Your task to perform on an android device: Search for usb-c to usb-a on costco, select the first entry, and add it to the cart. Image 0: 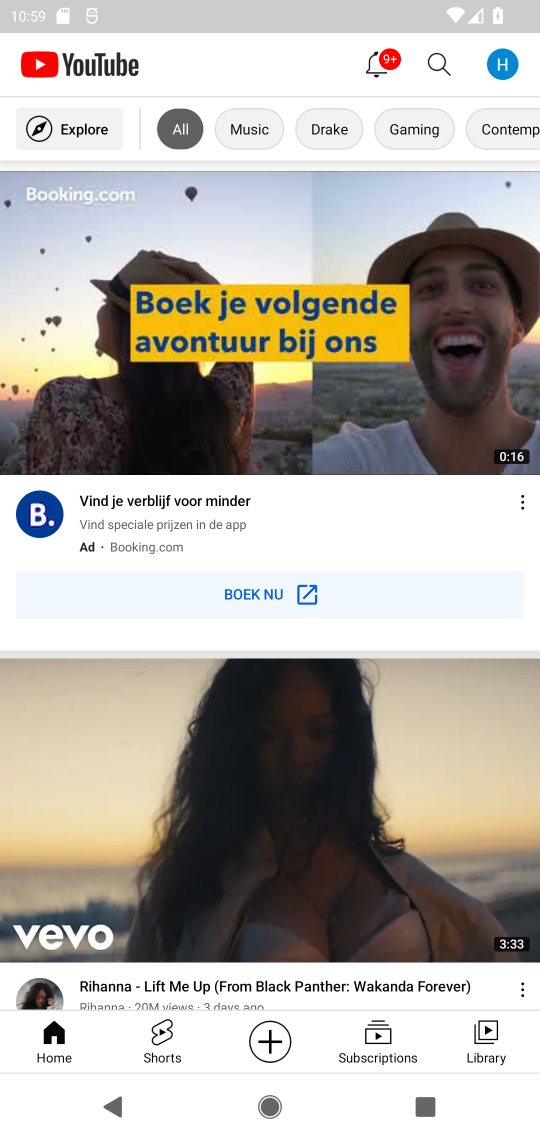
Step 0: press home button
Your task to perform on an android device: Search for usb-c to usb-a on costco, select the first entry, and add it to the cart. Image 1: 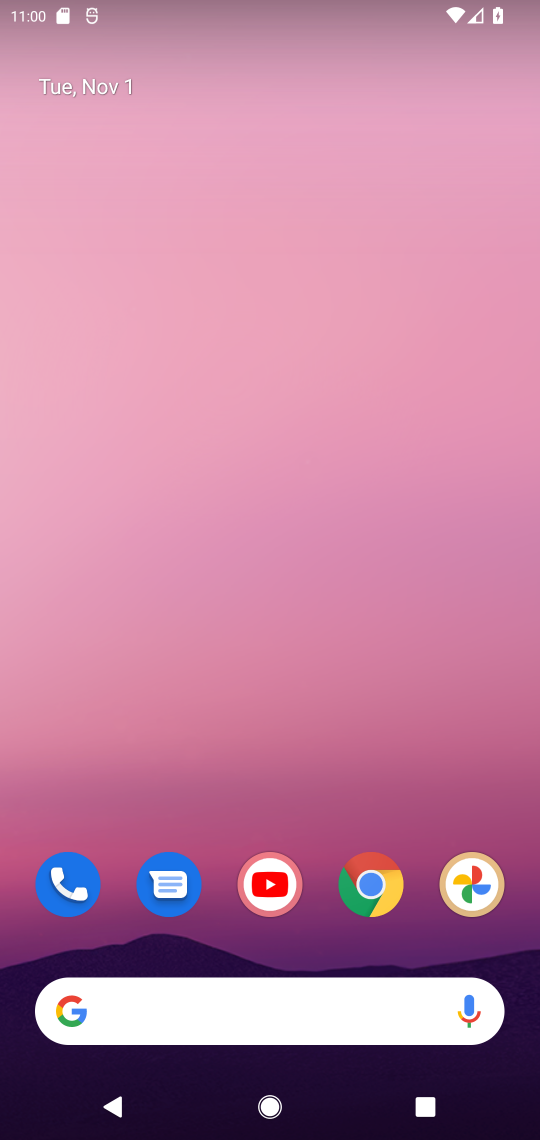
Step 1: click (357, 894)
Your task to perform on an android device: Search for usb-c to usb-a on costco, select the first entry, and add it to the cart. Image 2: 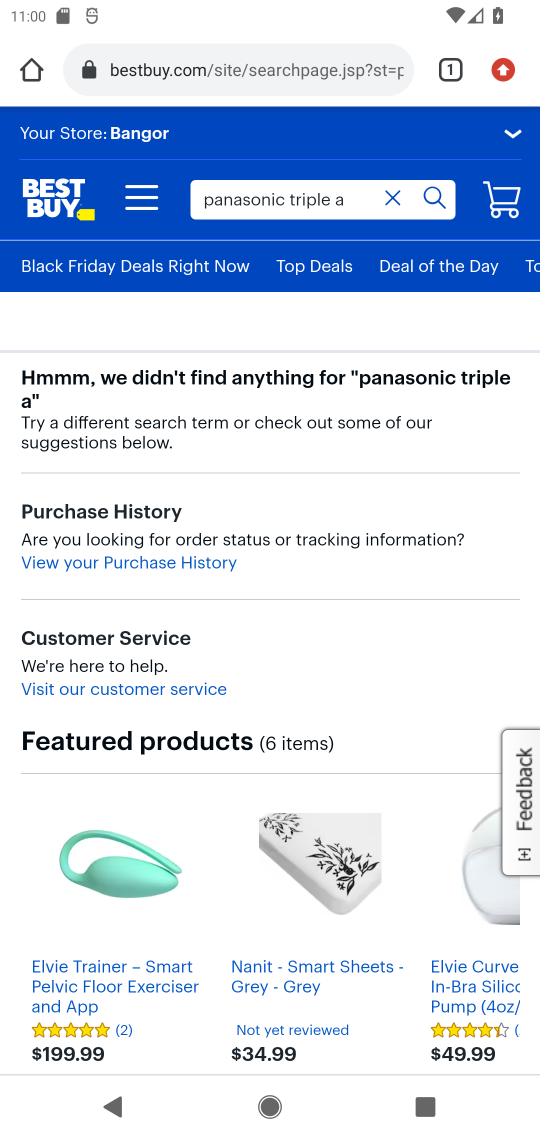
Step 2: click (263, 75)
Your task to perform on an android device: Search for usb-c to usb-a on costco, select the first entry, and add it to the cart. Image 3: 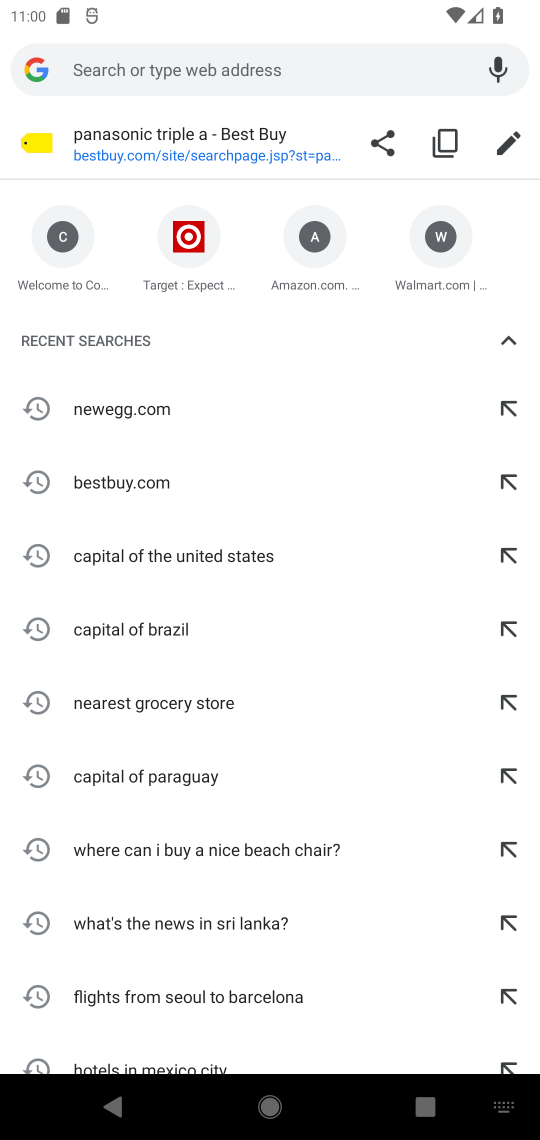
Step 3: click (64, 243)
Your task to perform on an android device: Search for usb-c to usb-a on costco, select the first entry, and add it to the cart. Image 4: 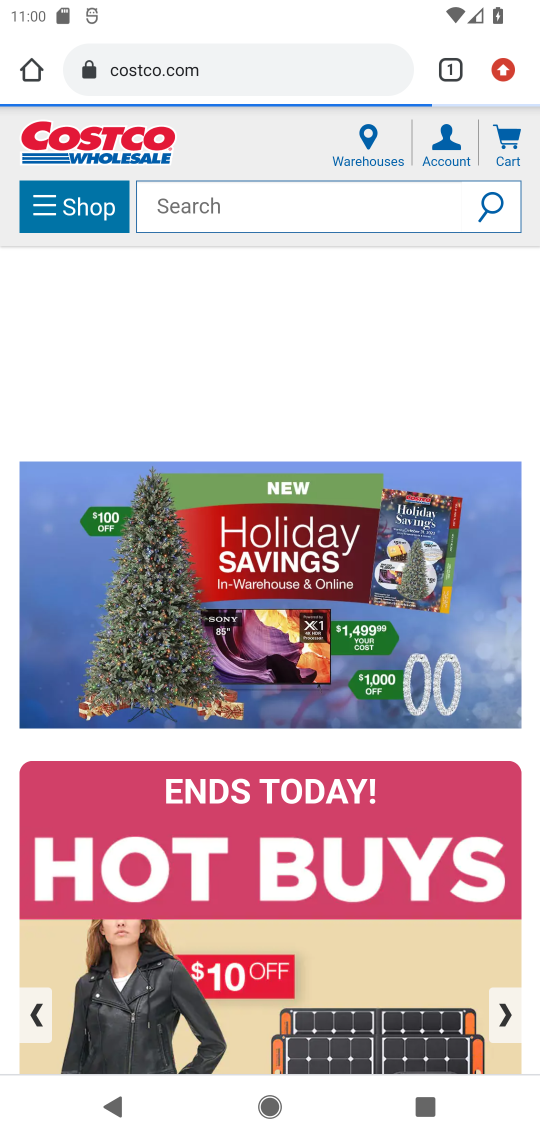
Step 4: click (191, 211)
Your task to perform on an android device: Search for usb-c to usb-a on costco, select the first entry, and add it to the cart. Image 5: 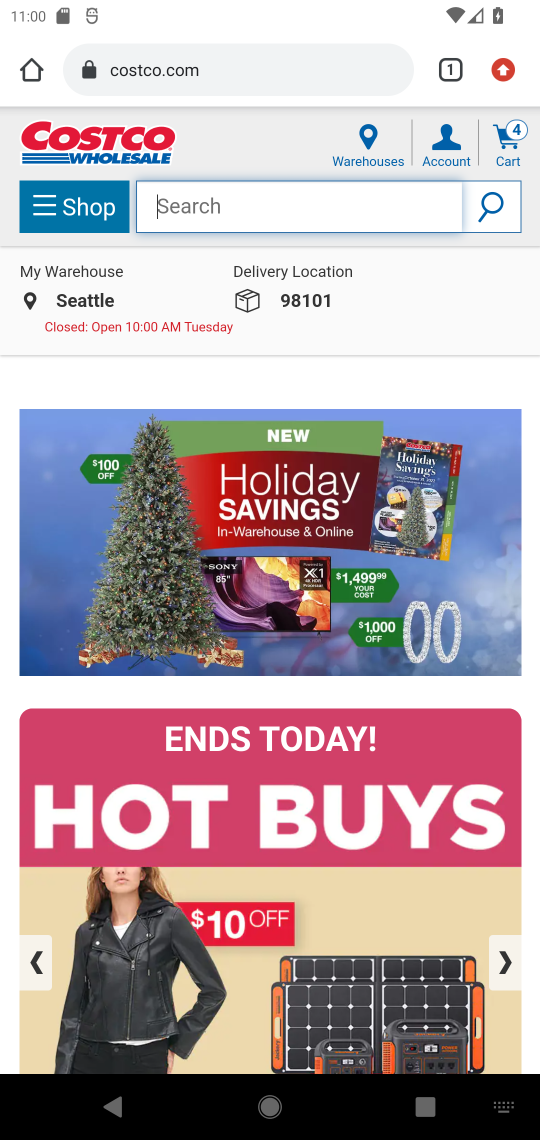
Step 5: click (310, 219)
Your task to perform on an android device: Search for usb-c to usb-a on costco, select the first entry, and add it to the cart. Image 6: 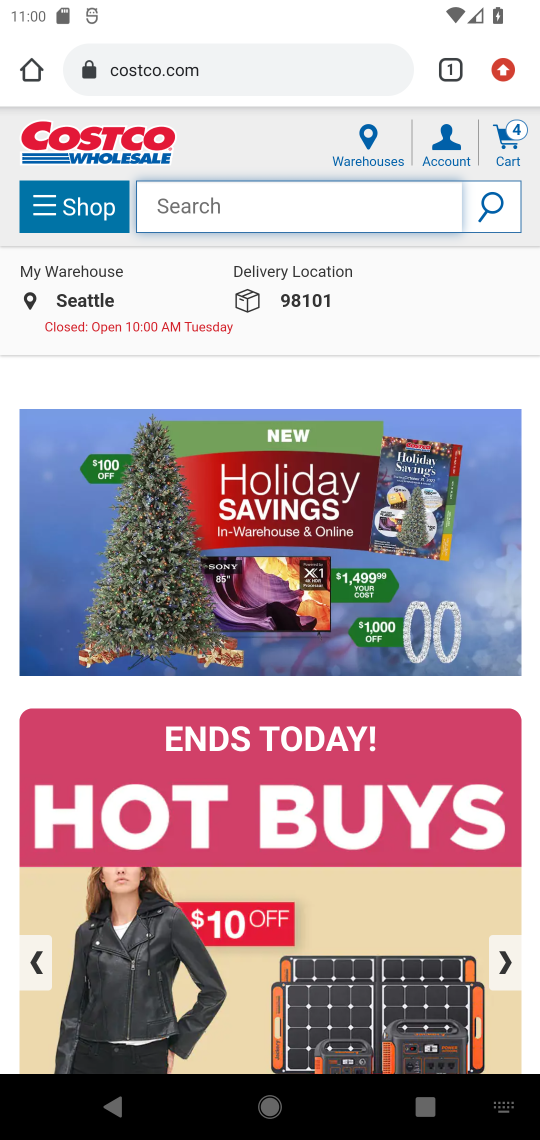
Step 6: type "usb-c to usb-a"
Your task to perform on an android device: Search for usb-c to usb-a on costco, select the first entry, and add it to the cart. Image 7: 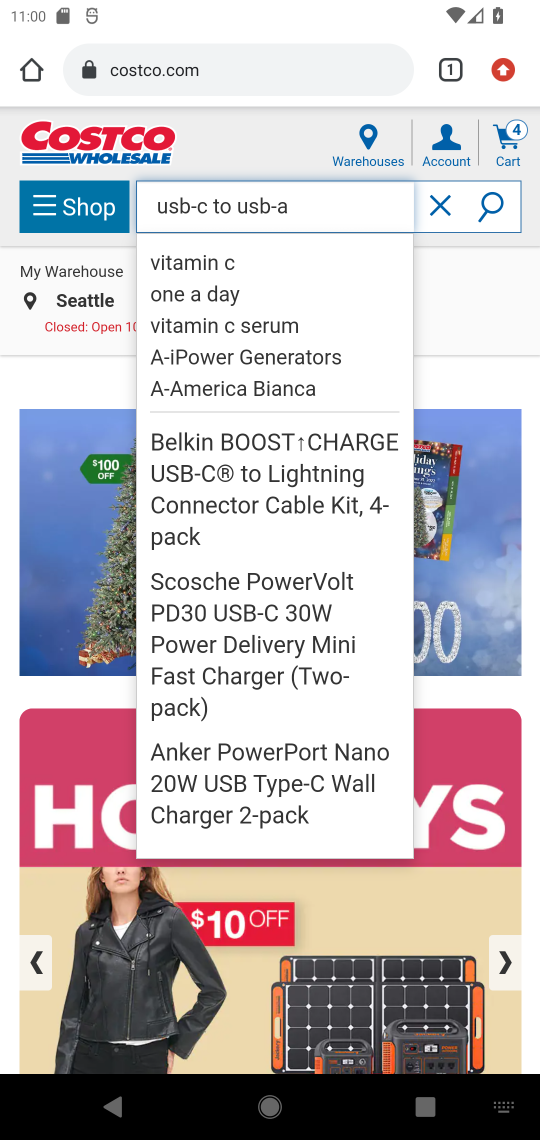
Step 7: click (490, 218)
Your task to perform on an android device: Search for usb-c to usb-a on costco, select the first entry, and add it to the cart. Image 8: 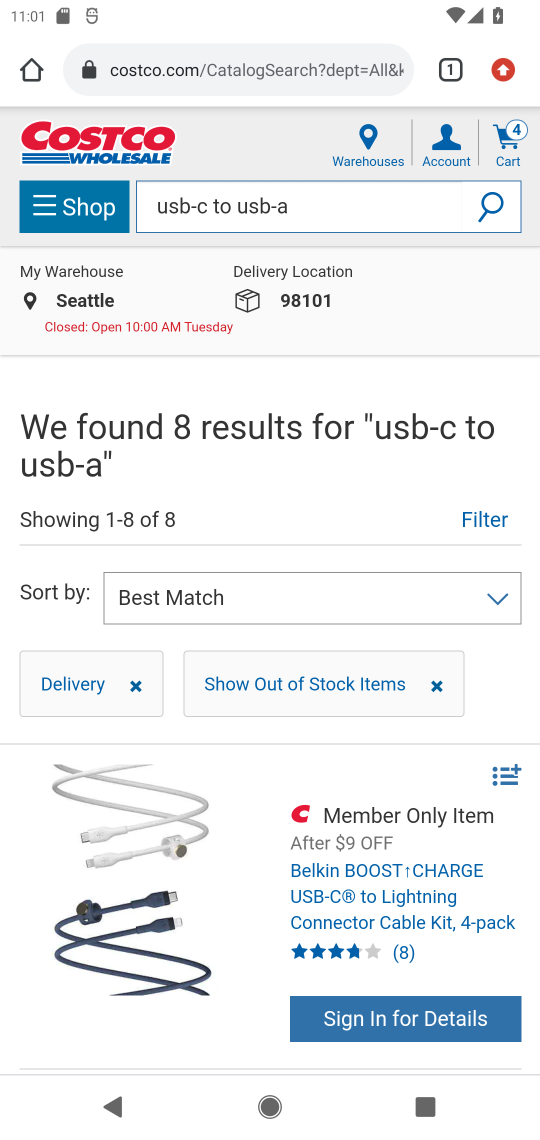
Step 8: drag from (208, 944) to (190, 642)
Your task to perform on an android device: Search for usb-c to usb-a on costco, select the first entry, and add it to the cart. Image 9: 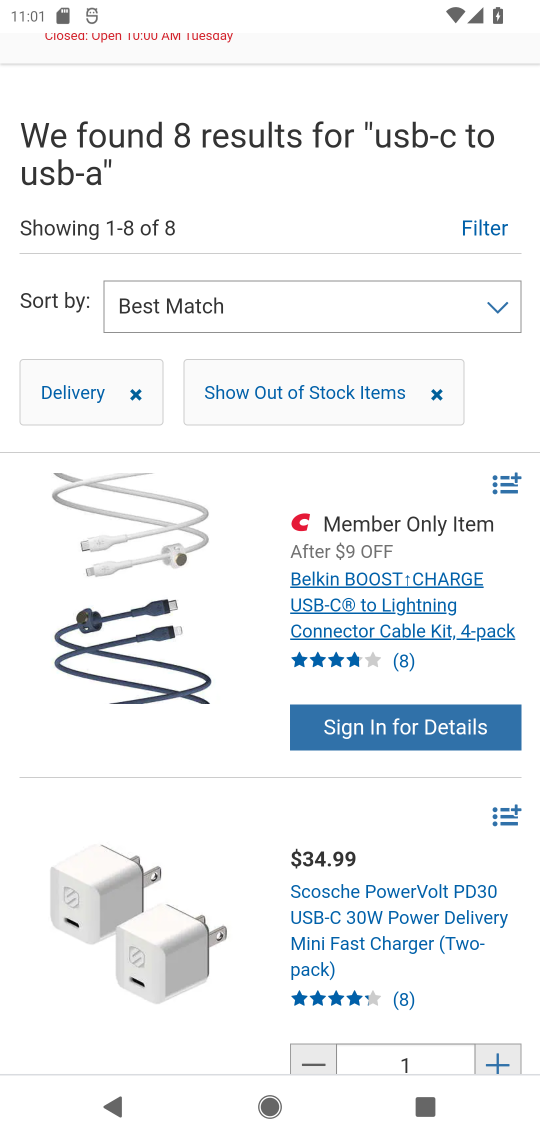
Step 9: click (262, 595)
Your task to perform on an android device: Search for usb-c to usb-a on costco, select the first entry, and add it to the cart. Image 10: 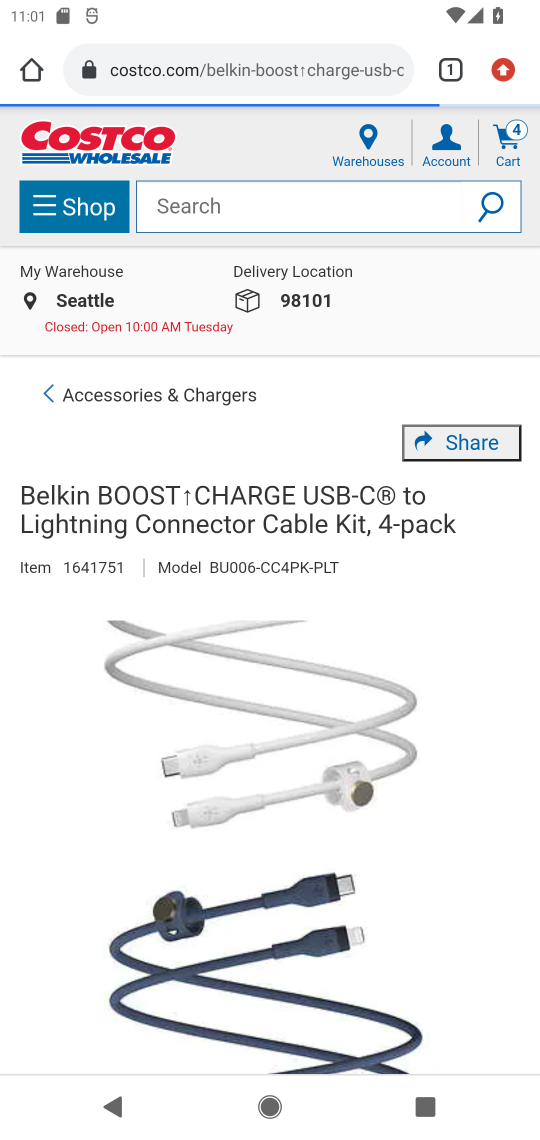
Step 10: drag from (277, 835) to (294, 433)
Your task to perform on an android device: Search for usb-c to usb-a on costco, select the first entry, and add it to the cart. Image 11: 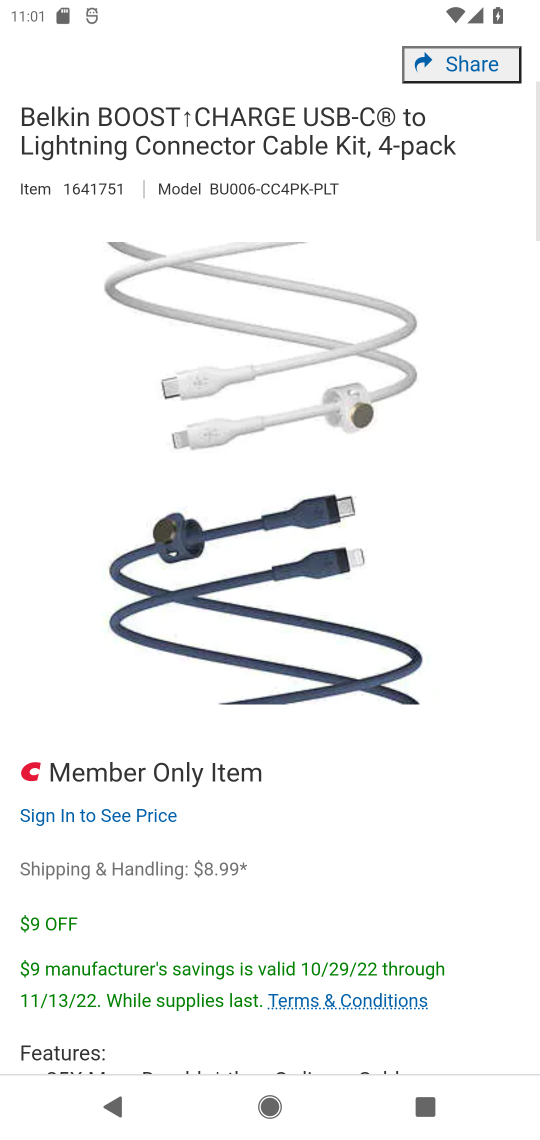
Step 11: drag from (253, 774) to (264, 477)
Your task to perform on an android device: Search for usb-c to usb-a on costco, select the first entry, and add it to the cart. Image 12: 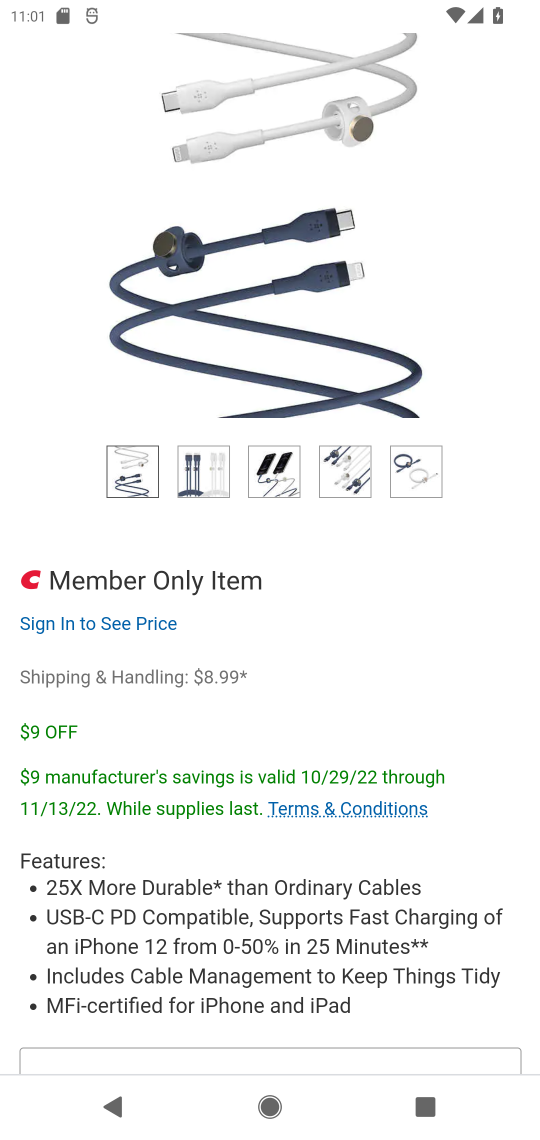
Step 12: drag from (230, 863) to (242, 472)
Your task to perform on an android device: Search for usb-c to usb-a on costco, select the first entry, and add it to the cart. Image 13: 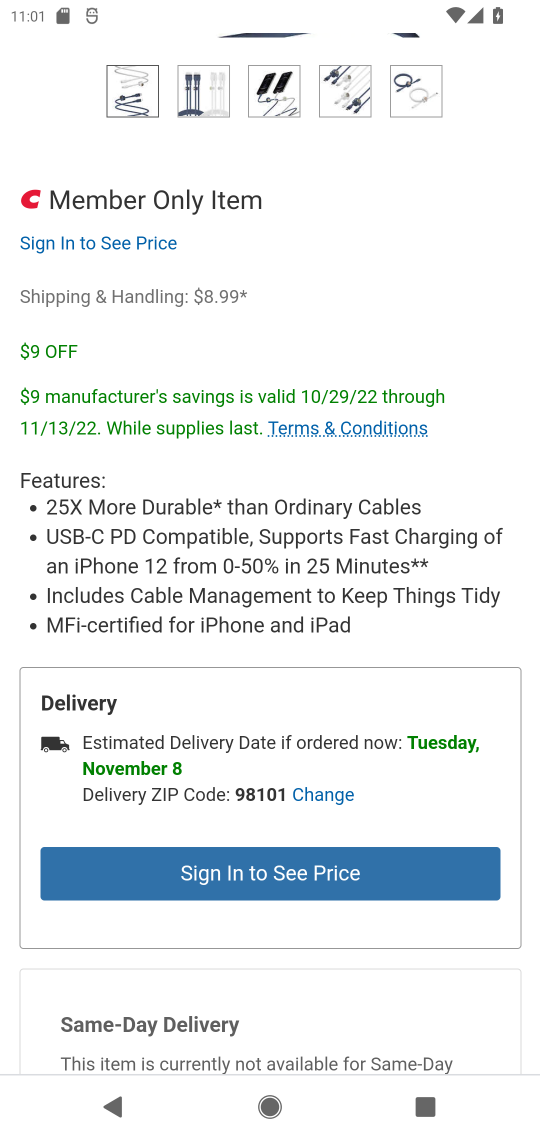
Step 13: drag from (248, 875) to (262, 590)
Your task to perform on an android device: Search for usb-c to usb-a on costco, select the first entry, and add it to the cart. Image 14: 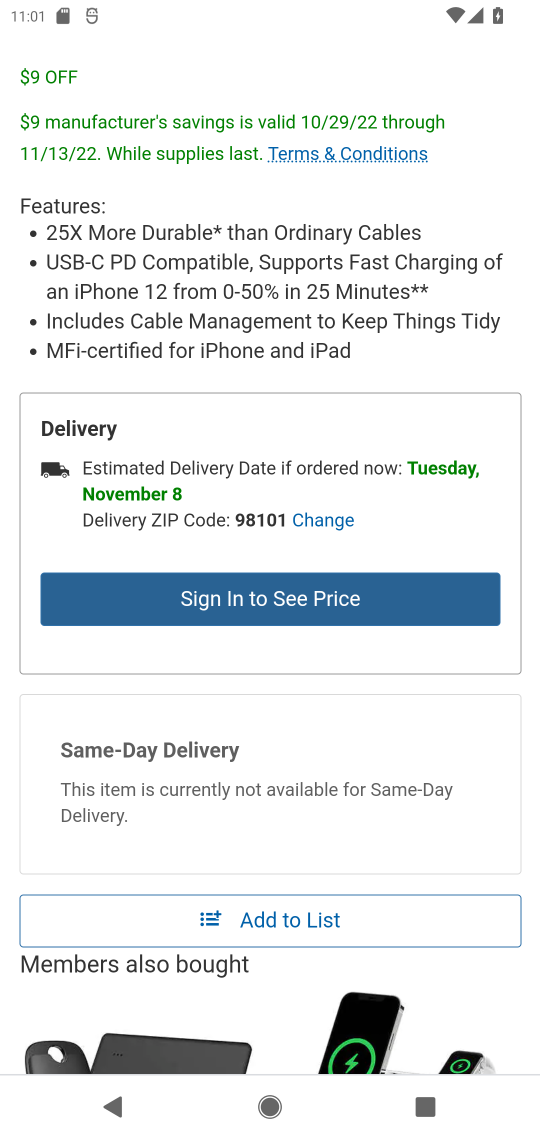
Step 14: drag from (256, 862) to (278, 466)
Your task to perform on an android device: Search for usb-c to usb-a on costco, select the first entry, and add it to the cart. Image 15: 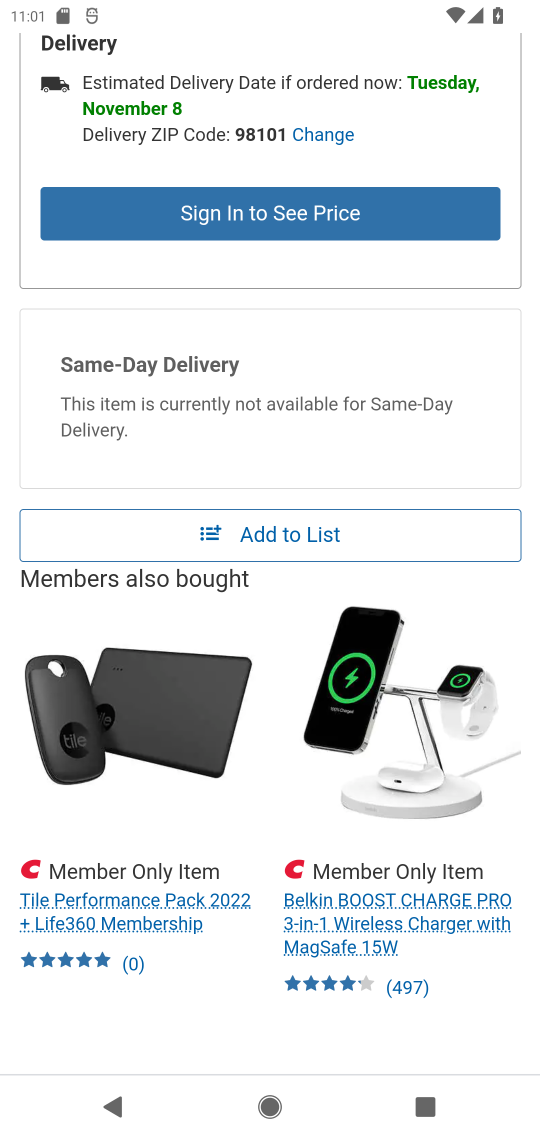
Step 15: drag from (278, 451) to (278, 1123)
Your task to perform on an android device: Search for usb-c to usb-a on costco, select the first entry, and add it to the cart. Image 16: 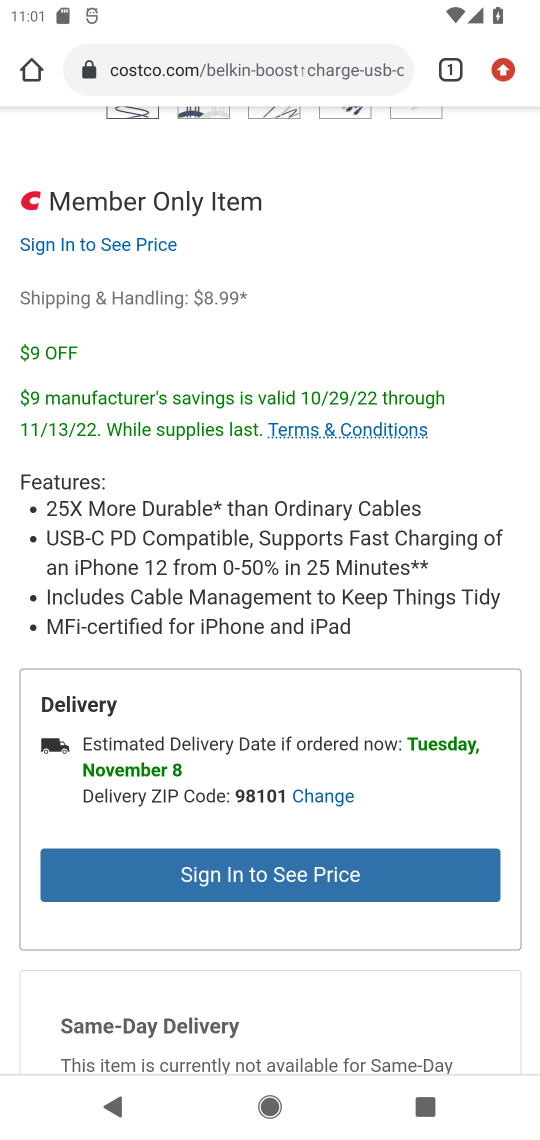
Step 16: drag from (283, 308) to (248, 909)
Your task to perform on an android device: Search for usb-c to usb-a on costco, select the first entry, and add it to the cart. Image 17: 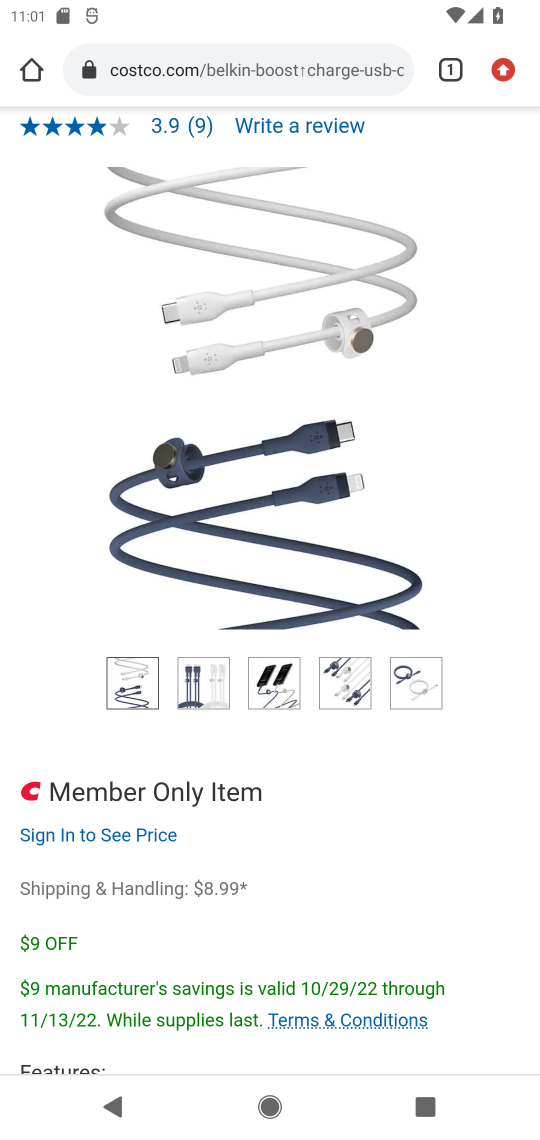
Step 17: drag from (317, 466) to (322, 824)
Your task to perform on an android device: Search for usb-c to usb-a on costco, select the first entry, and add it to the cart. Image 18: 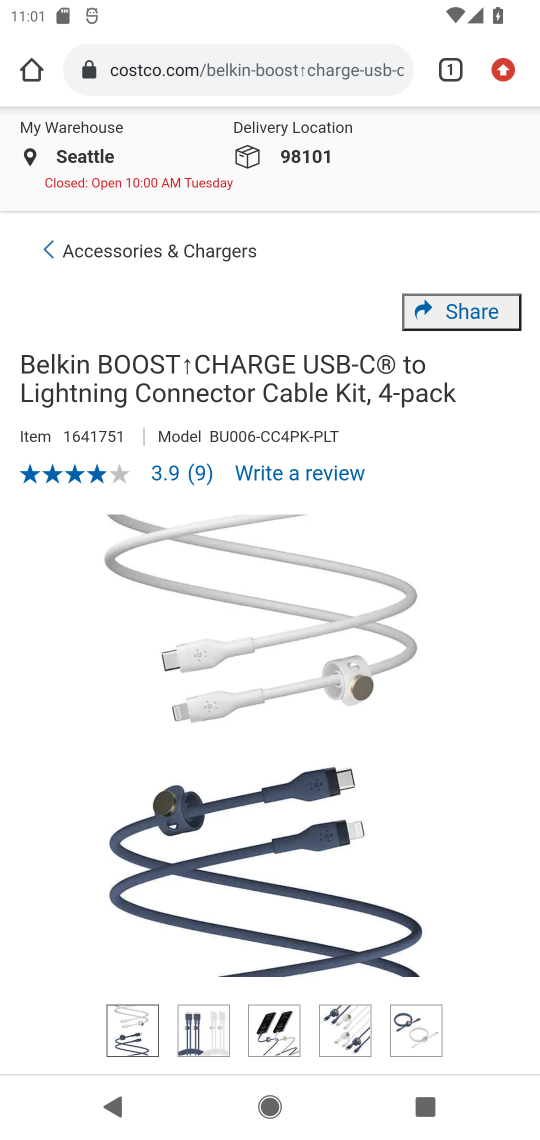
Step 18: drag from (259, 555) to (270, 845)
Your task to perform on an android device: Search for usb-c to usb-a on costco, select the first entry, and add it to the cart. Image 19: 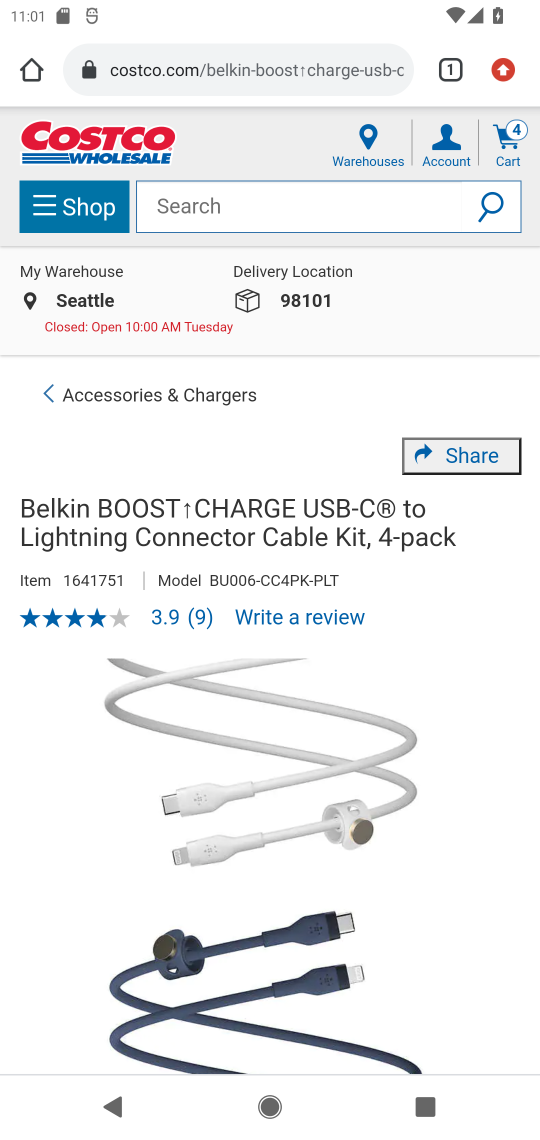
Step 19: drag from (285, 755) to (309, 308)
Your task to perform on an android device: Search for usb-c to usb-a on costco, select the first entry, and add it to the cart. Image 20: 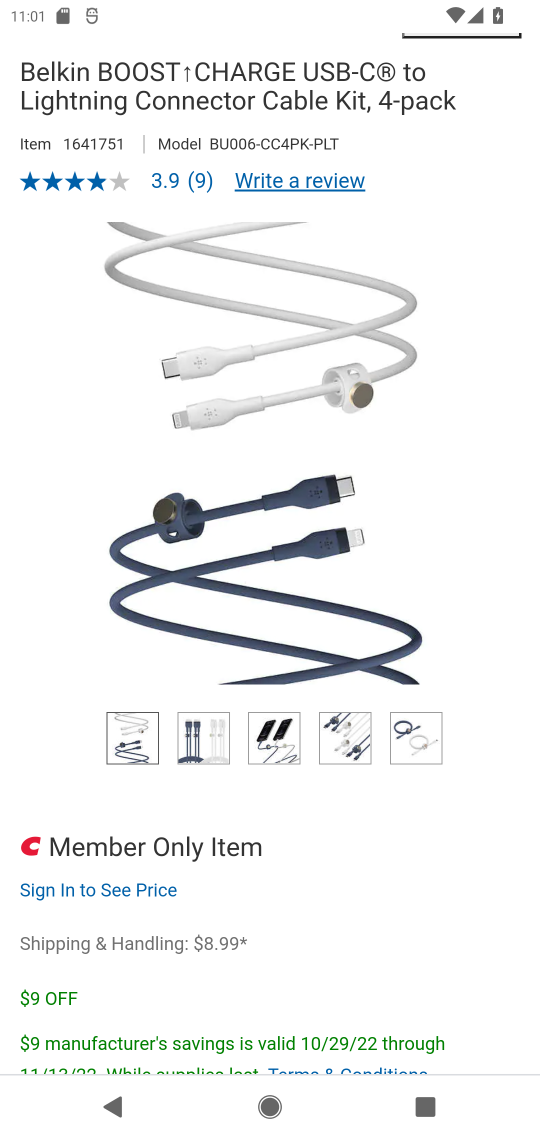
Step 20: drag from (305, 753) to (318, 455)
Your task to perform on an android device: Search for usb-c to usb-a on costco, select the first entry, and add it to the cart. Image 21: 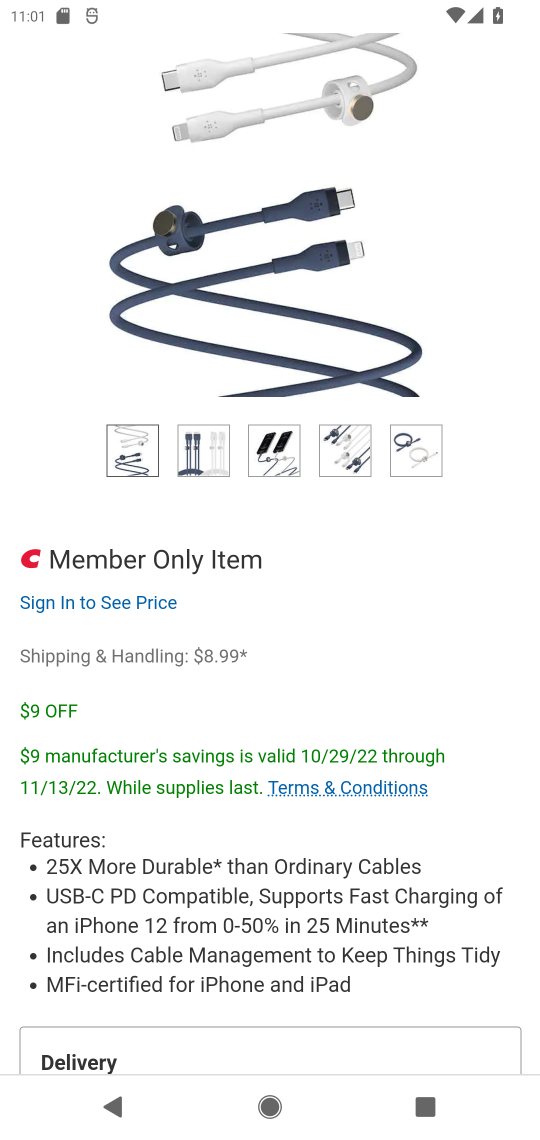
Step 21: drag from (339, 786) to (328, 473)
Your task to perform on an android device: Search for usb-c to usb-a on costco, select the first entry, and add it to the cart. Image 22: 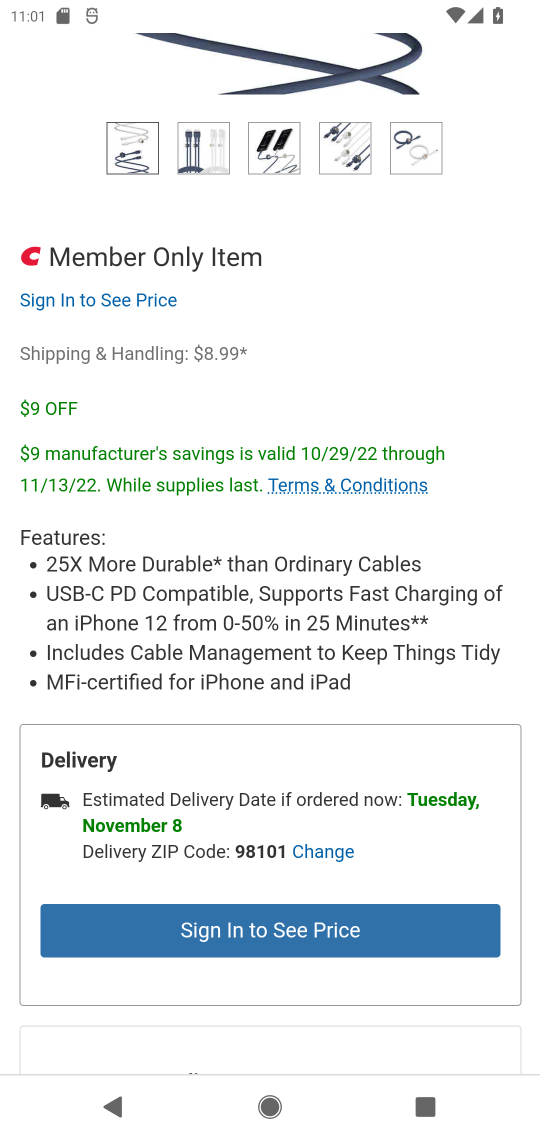
Step 22: drag from (246, 972) to (253, 472)
Your task to perform on an android device: Search for usb-c to usb-a on costco, select the first entry, and add it to the cart. Image 23: 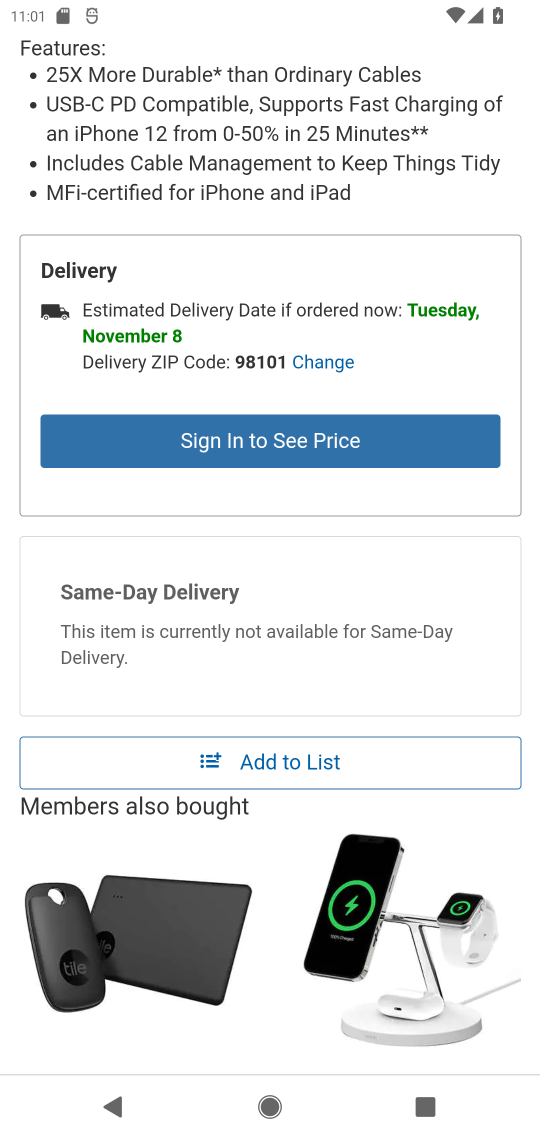
Step 23: click (262, 761)
Your task to perform on an android device: Search for usb-c to usb-a on costco, select the first entry, and add it to the cart. Image 24: 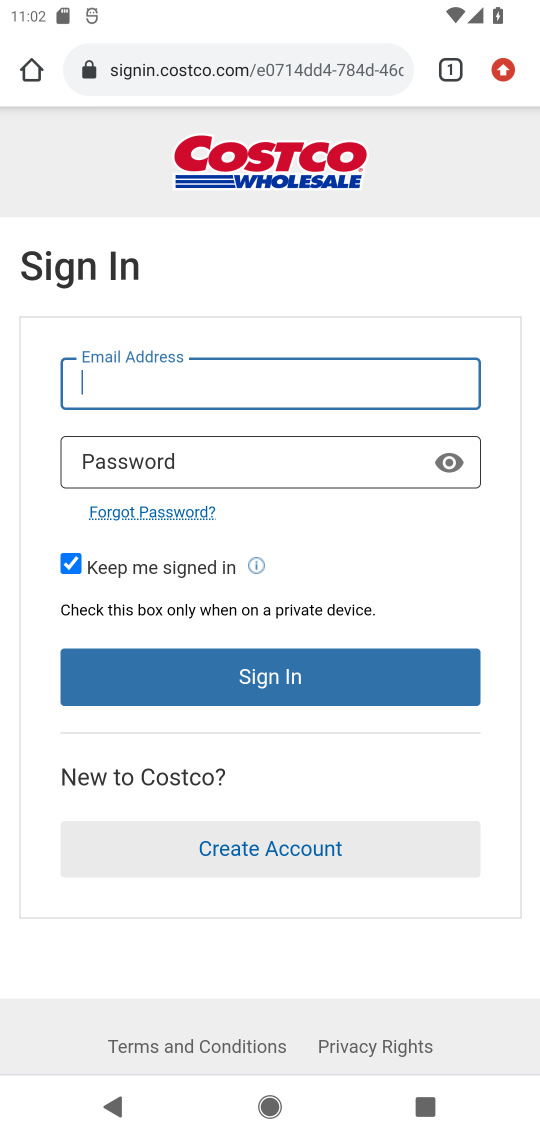
Step 24: task complete